Your task to perform on an android device: set default search engine in the chrome app Image 0: 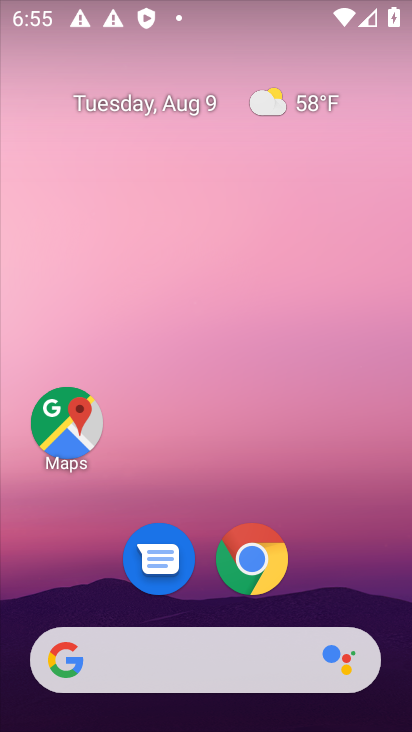
Step 0: press home button
Your task to perform on an android device: set default search engine in the chrome app Image 1: 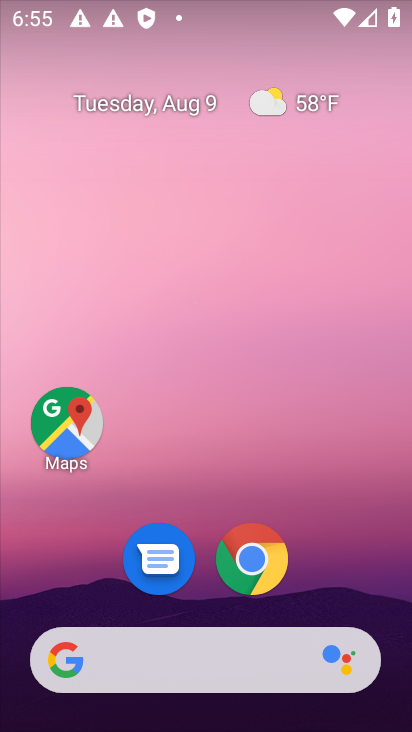
Step 1: click (250, 558)
Your task to perform on an android device: set default search engine in the chrome app Image 2: 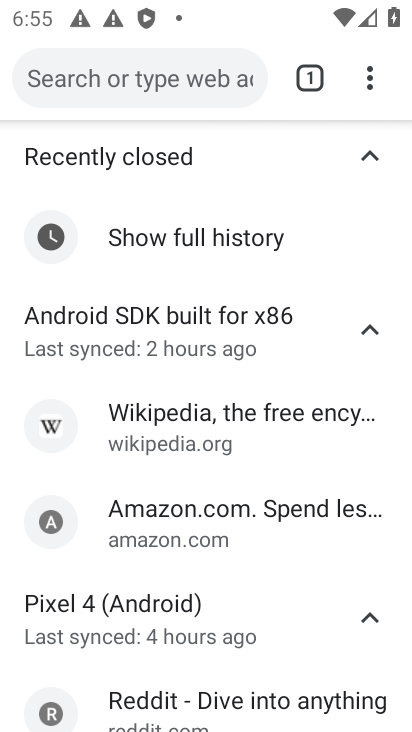
Step 2: click (370, 84)
Your task to perform on an android device: set default search engine in the chrome app Image 3: 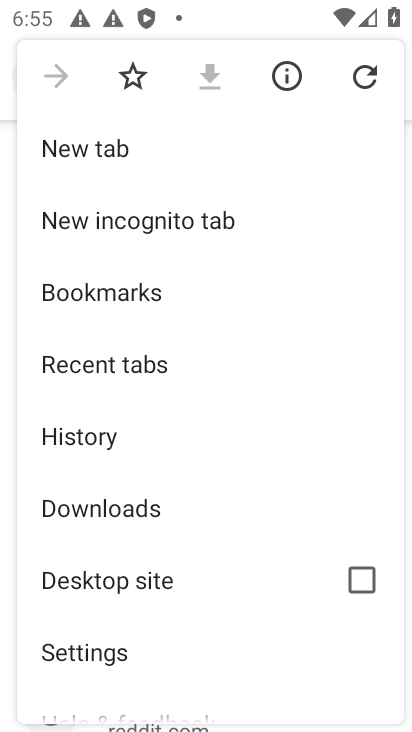
Step 3: click (90, 646)
Your task to perform on an android device: set default search engine in the chrome app Image 4: 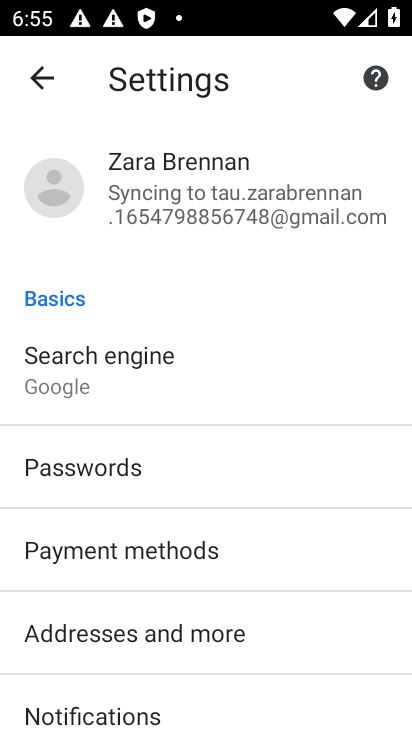
Step 4: click (113, 403)
Your task to perform on an android device: set default search engine in the chrome app Image 5: 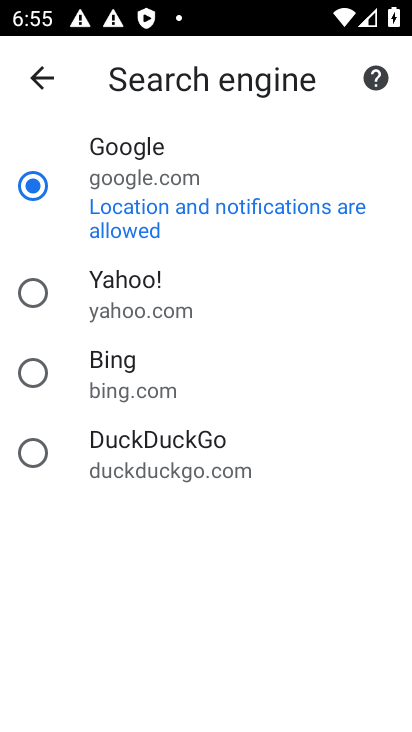
Step 5: click (30, 282)
Your task to perform on an android device: set default search engine in the chrome app Image 6: 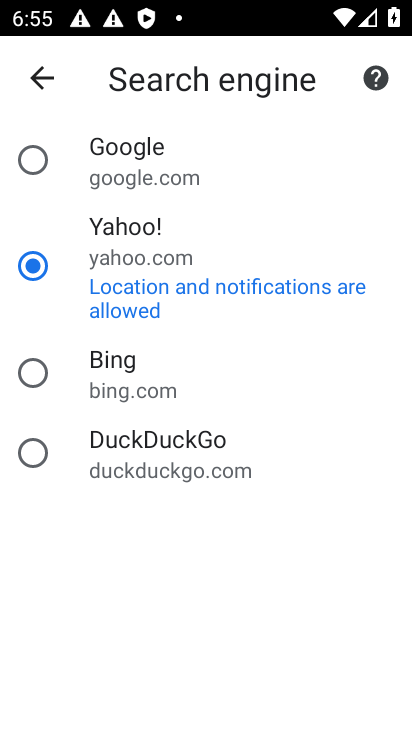
Step 6: task complete